Your task to perform on an android device: open app "Google Docs" Image 0: 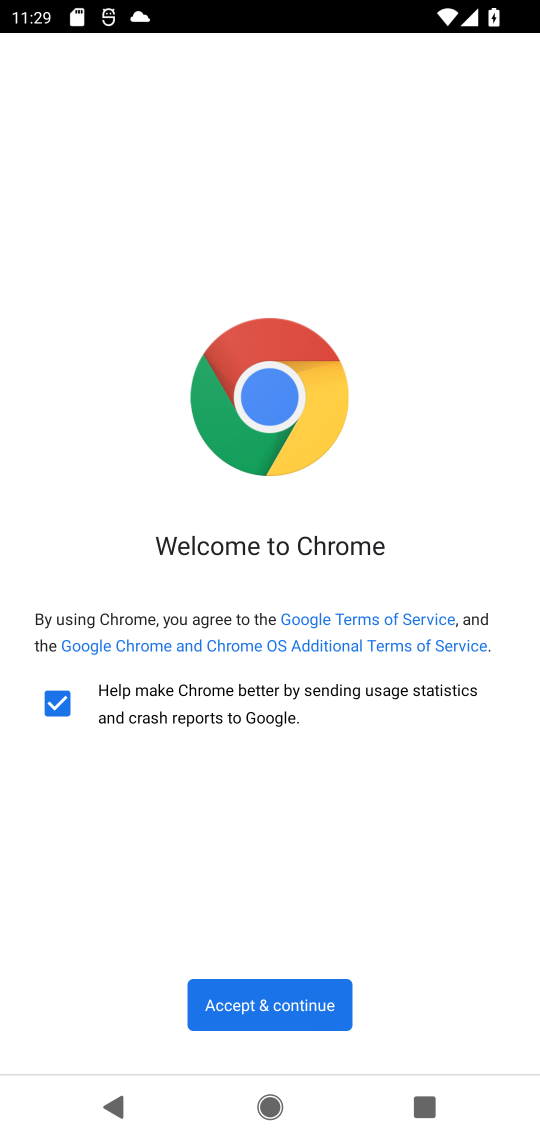
Step 0: press home button
Your task to perform on an android device: open app "Google Docs" Image 1: 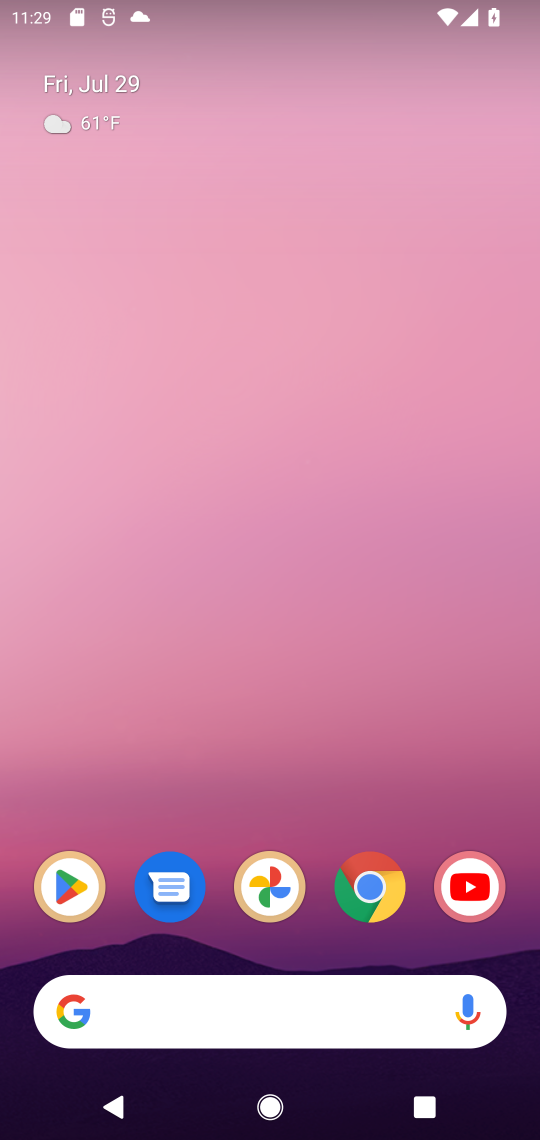
Step 1: drag from (210, 1012) to (207, 307)
Your task to perform on an android device: open app "Google Docs" Image 2: 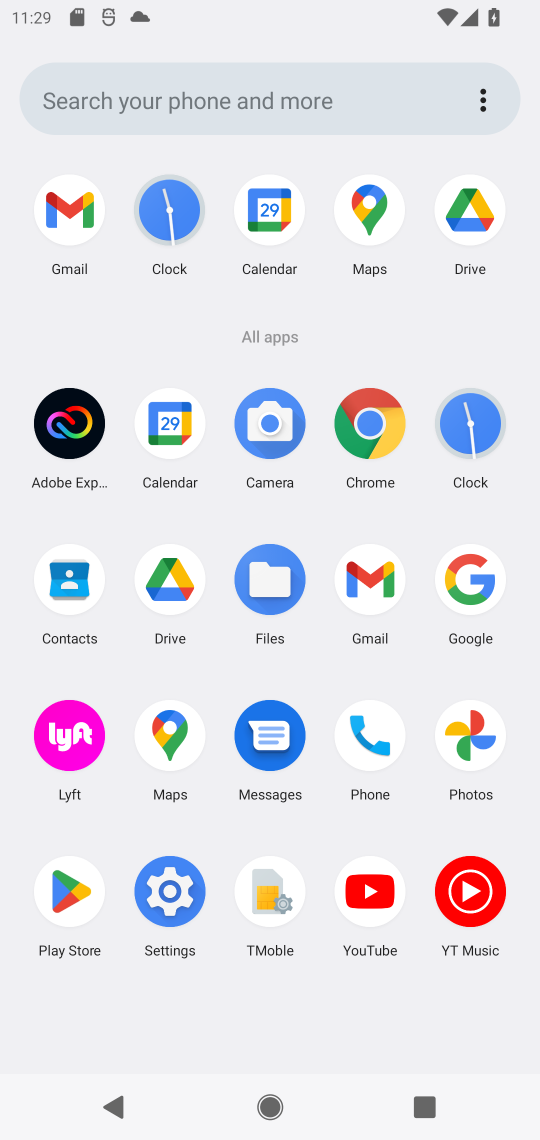
Step 2: click (69, 890)
Your task to perform on an android device: open app "Google Docs" Image 3: 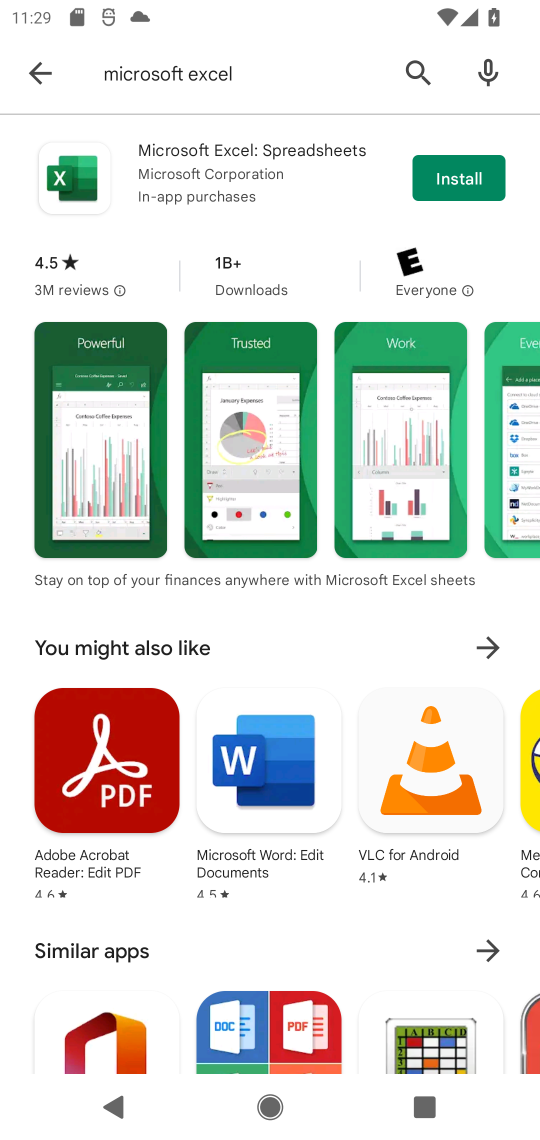
Step 3: click (410, 70)
Your task to perform on an android device: open app "Google Docs" Image 4: 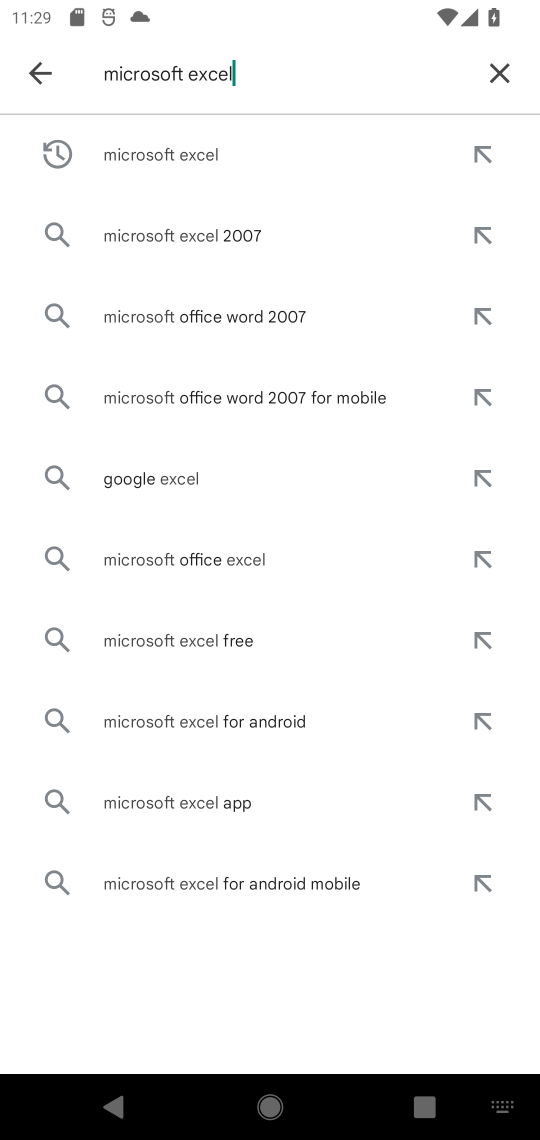
Step 4: click (502, 71)
Your task to perform on an android device: open app "Google Docs" Image 5: 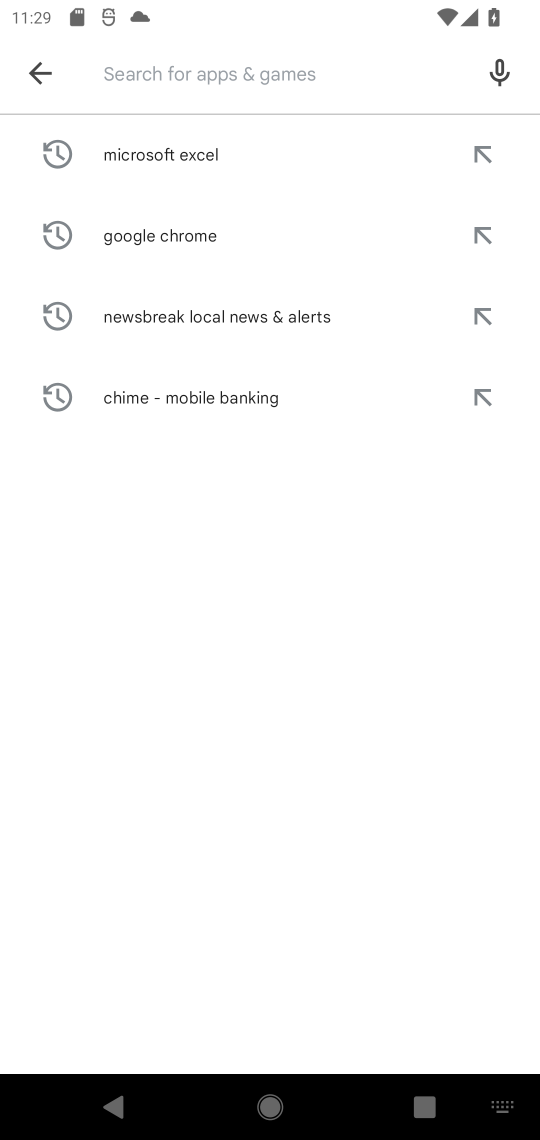
Step 5: type "Google Docs"
Your task to perform on an android device: open app "Google Docs" Image 6: 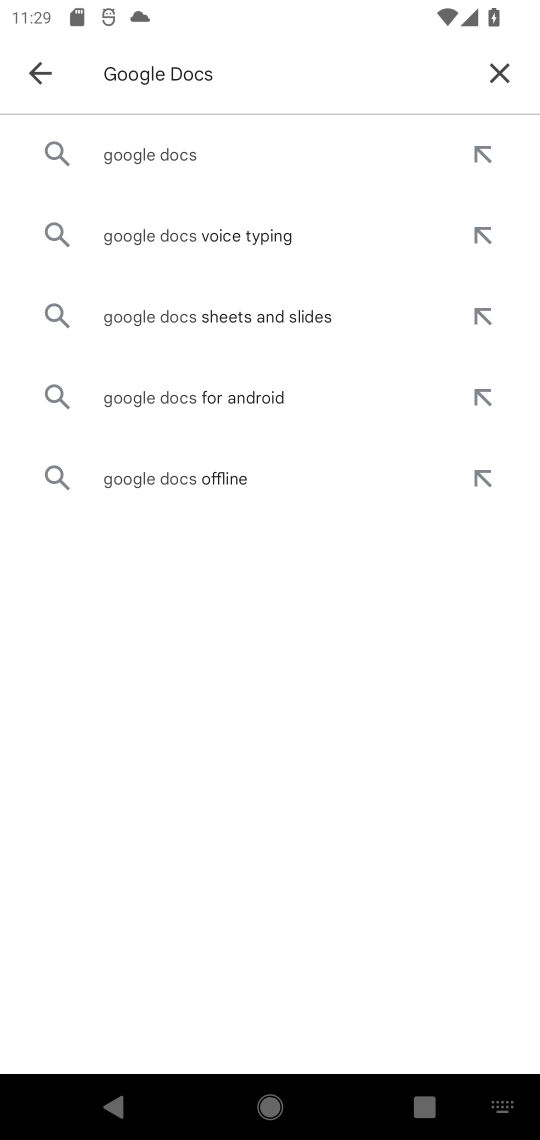
Step 6: click (173, 163)
Your task to perform on an android device: open app "Google Docs" Image 7: 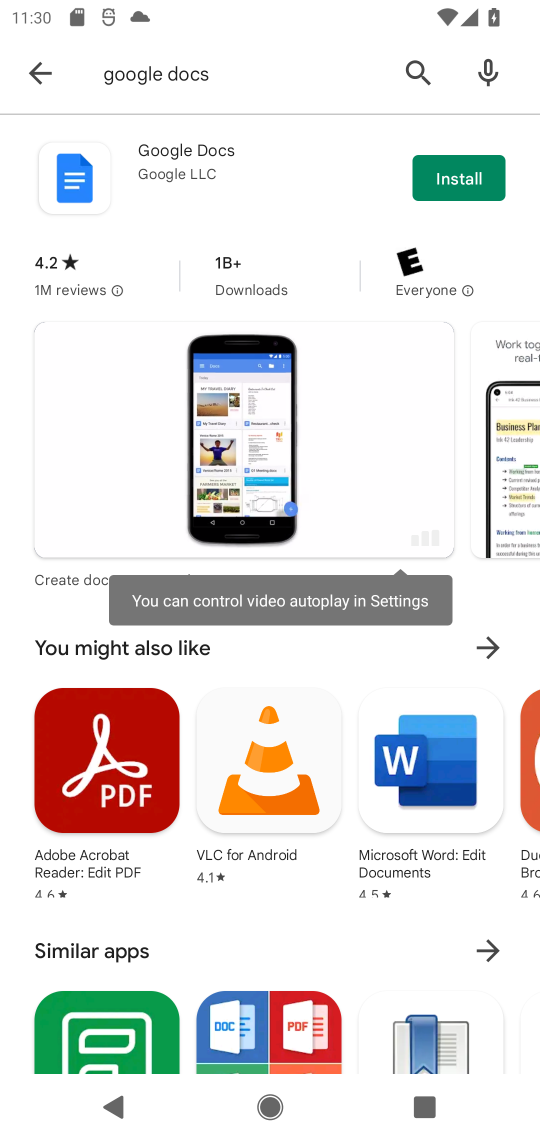
Step 7: task complete